Your task to perform on an android device: toggle translation in the chrome app Image 0: 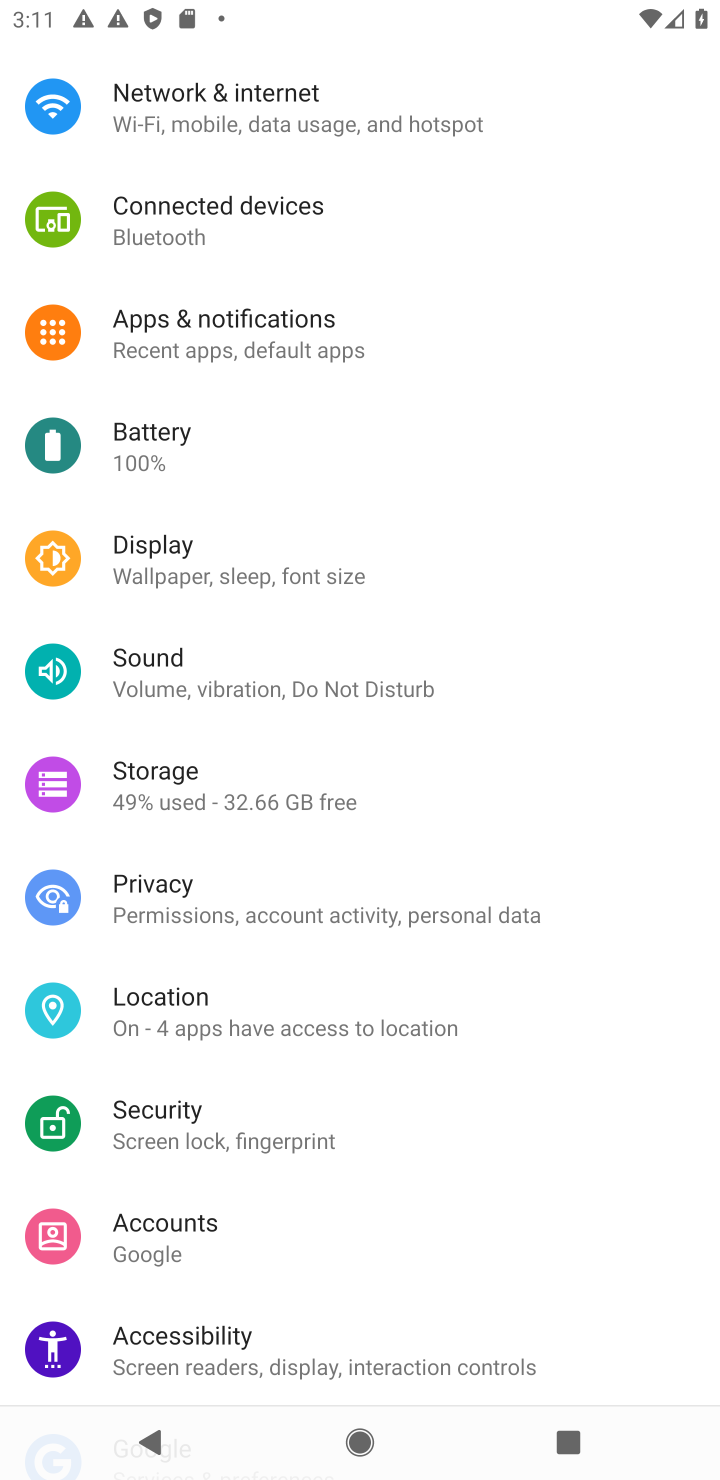
Step 0: press home button
Your task to perform on an android device: toggle translation in the chrome app Image 1: 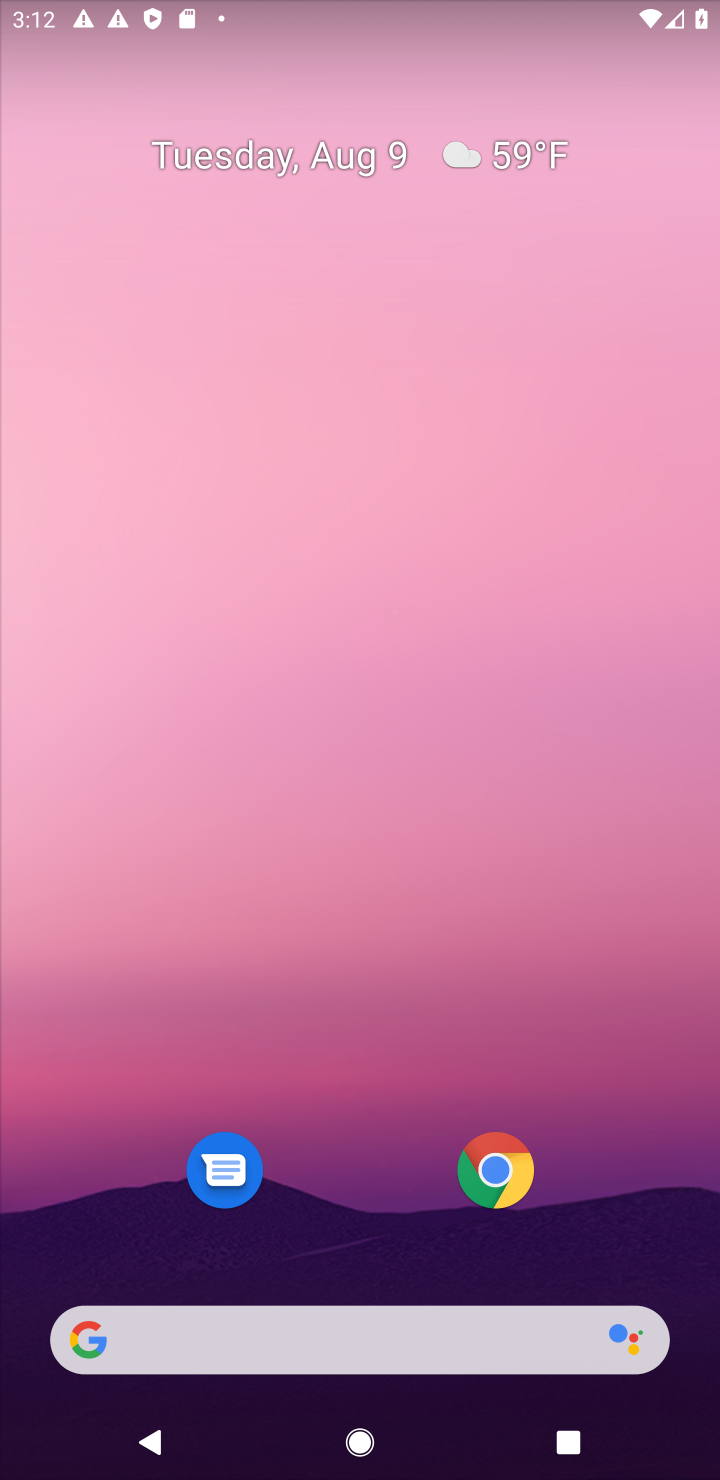
Step 1: click (493, 1169)
Your task to perform on an android device: toggle translation in the chrome app Image 2: 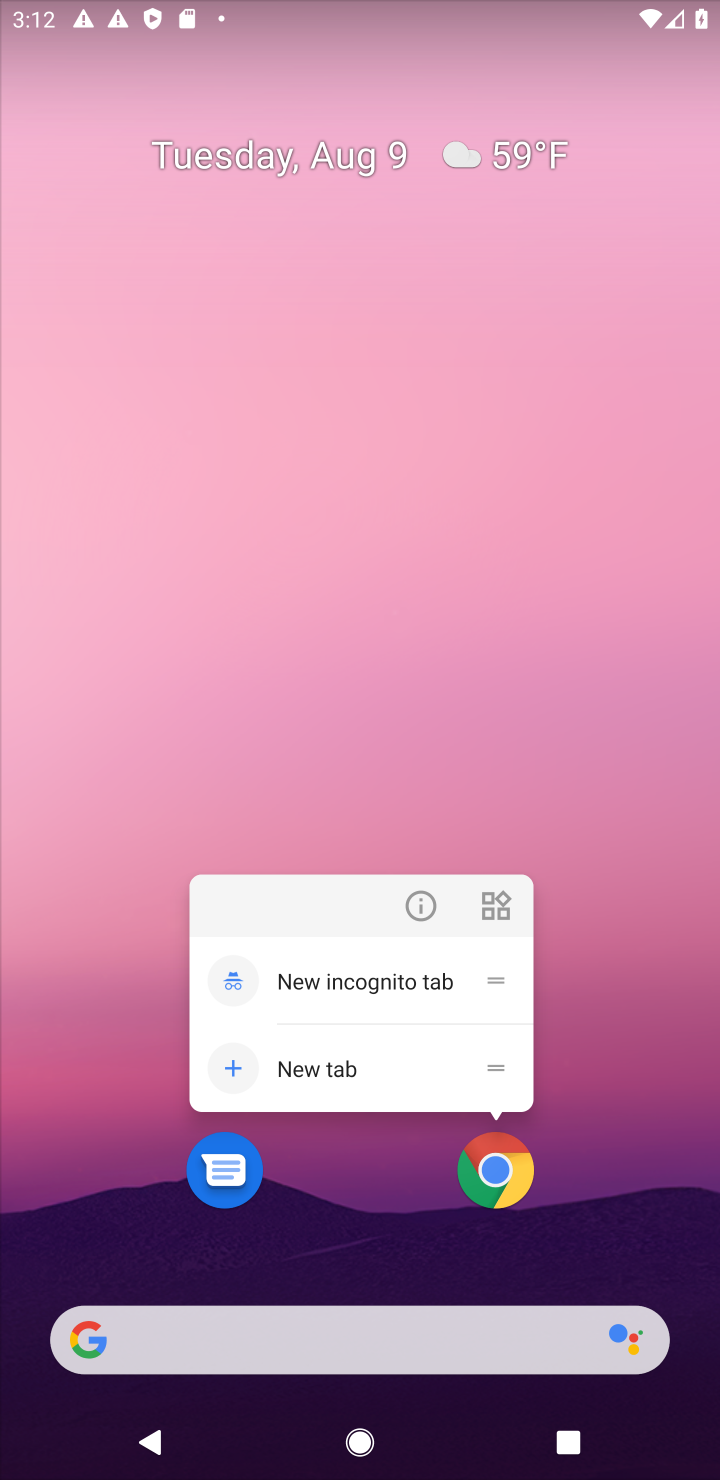
Step 2: click (509, 1170)
Your task to perform on an android device: toggle translation in the chrome app Image 3: 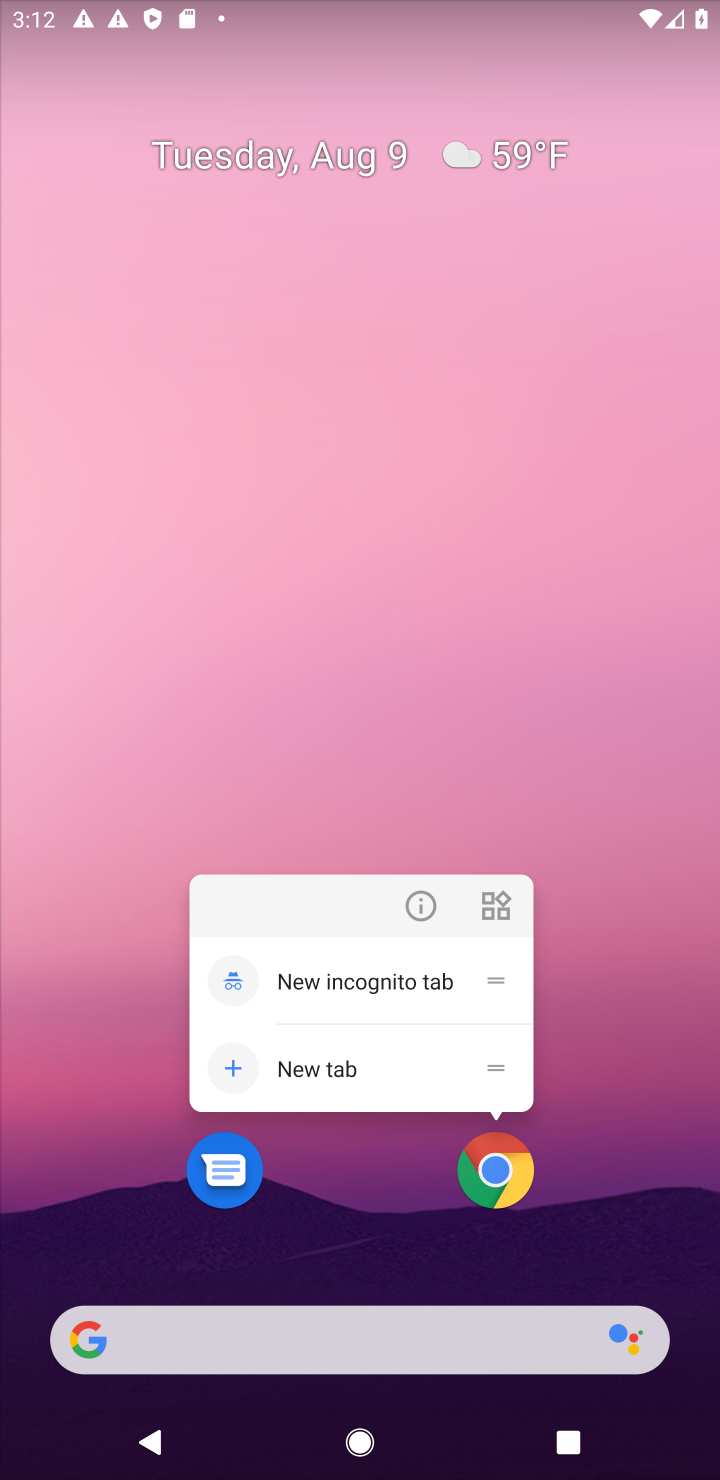
Step 3: click (511, 1176)
Your task to perform on an android device: toggle translation in the chrome app Image 4: 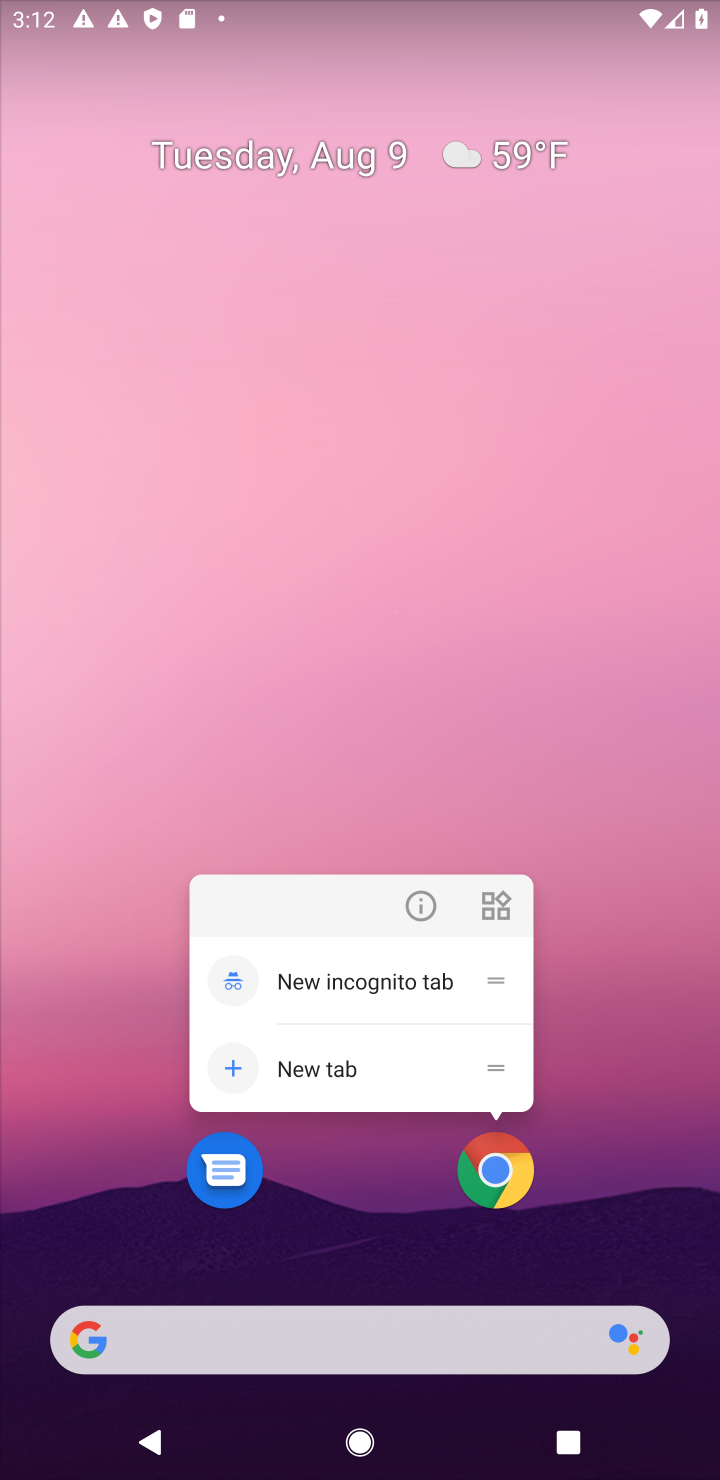
Step 4: click (515, 1153)
Your task to perform on an android device: toggle translation in the chrome app Image 5: 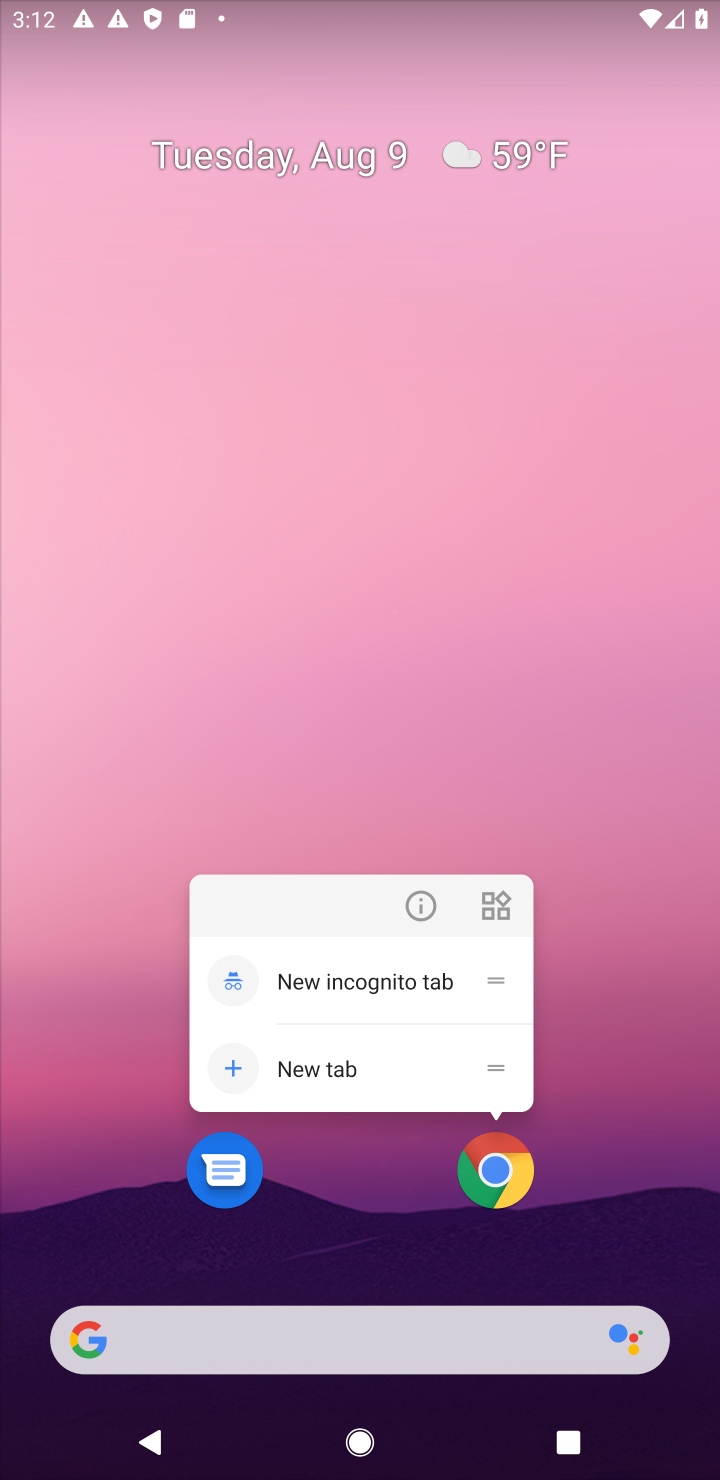
Step 5: click (499, 1171)
Your task to perform on an android device: toggle translation in the chrome app Image 6: 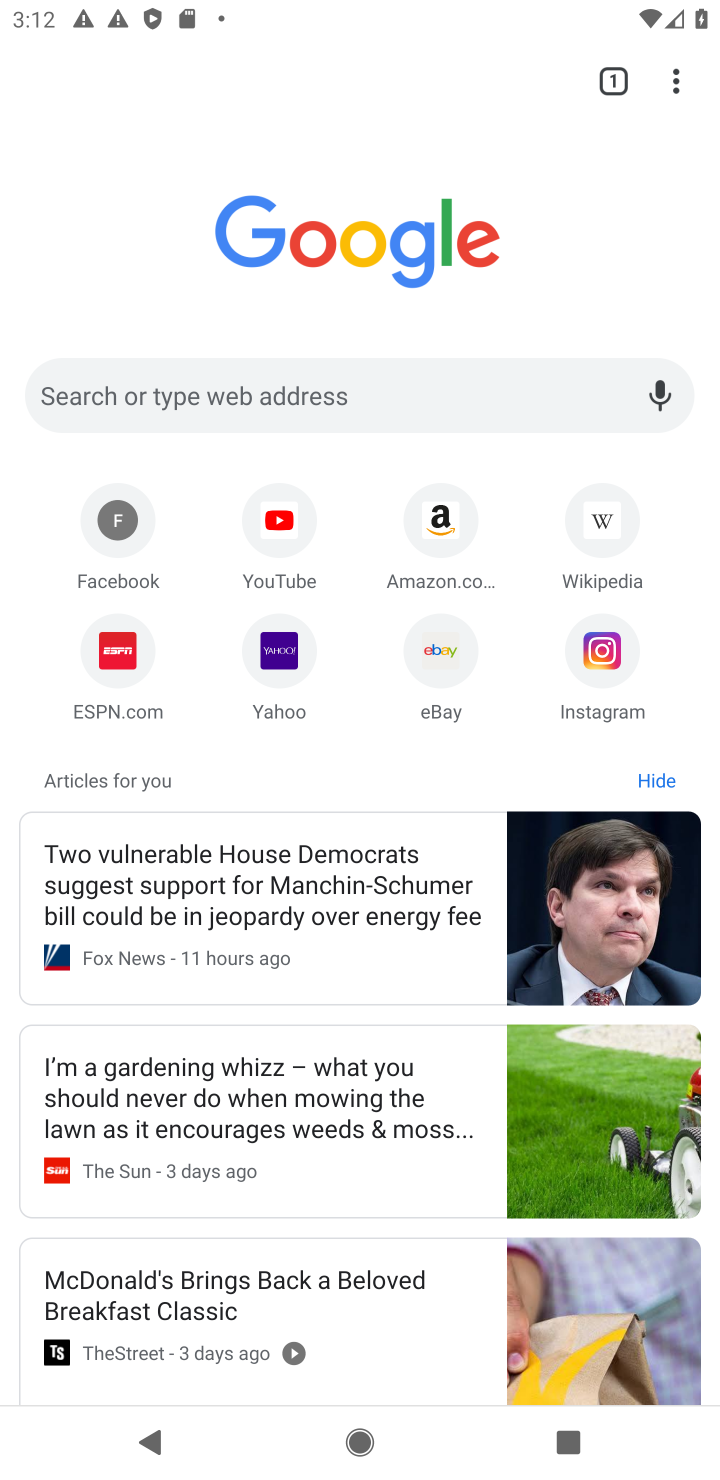
Step 6: drag from (675, 80) to (369, 678)
Your task to perform on an android device: toggle translation in the chrome app Image 7: 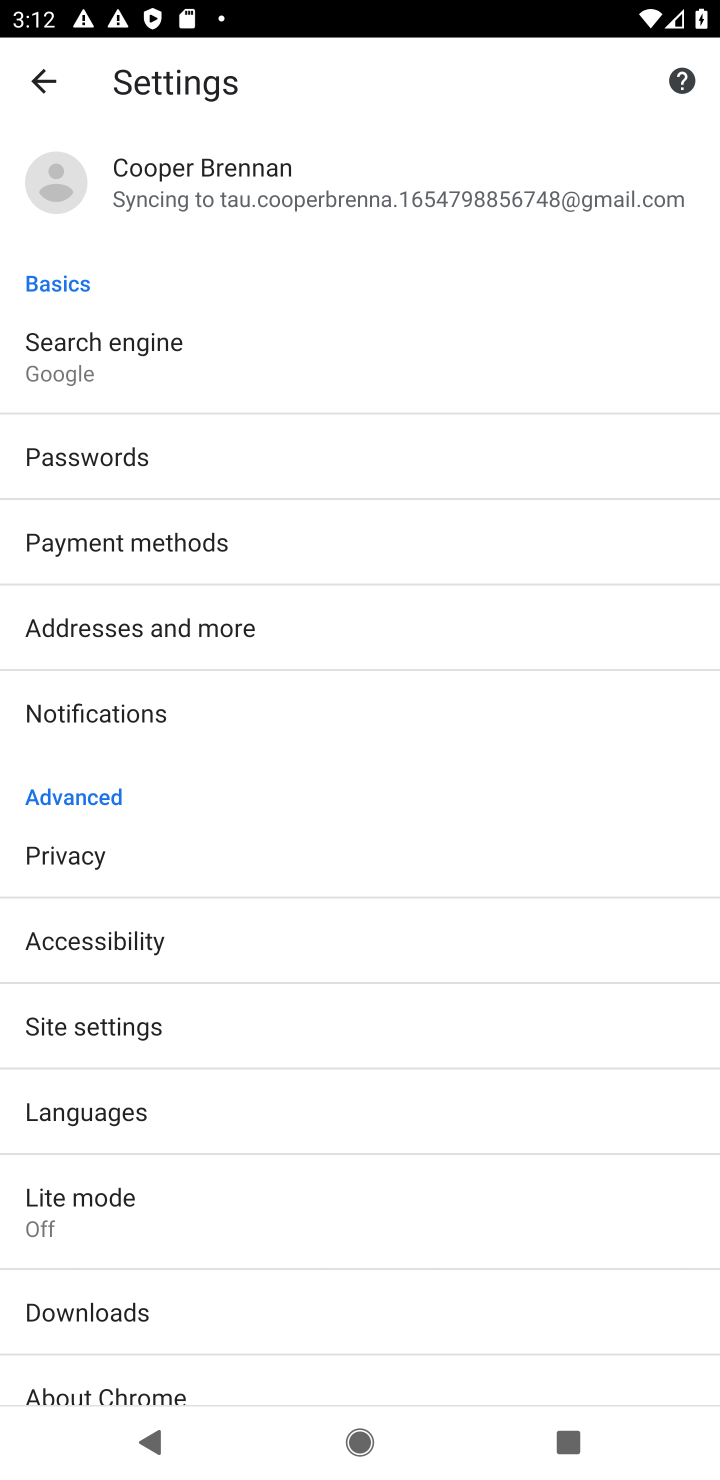
Step 7: click (131, 1118)
Your task to perform on an android device: toggle translation in the chrome app Image 8: 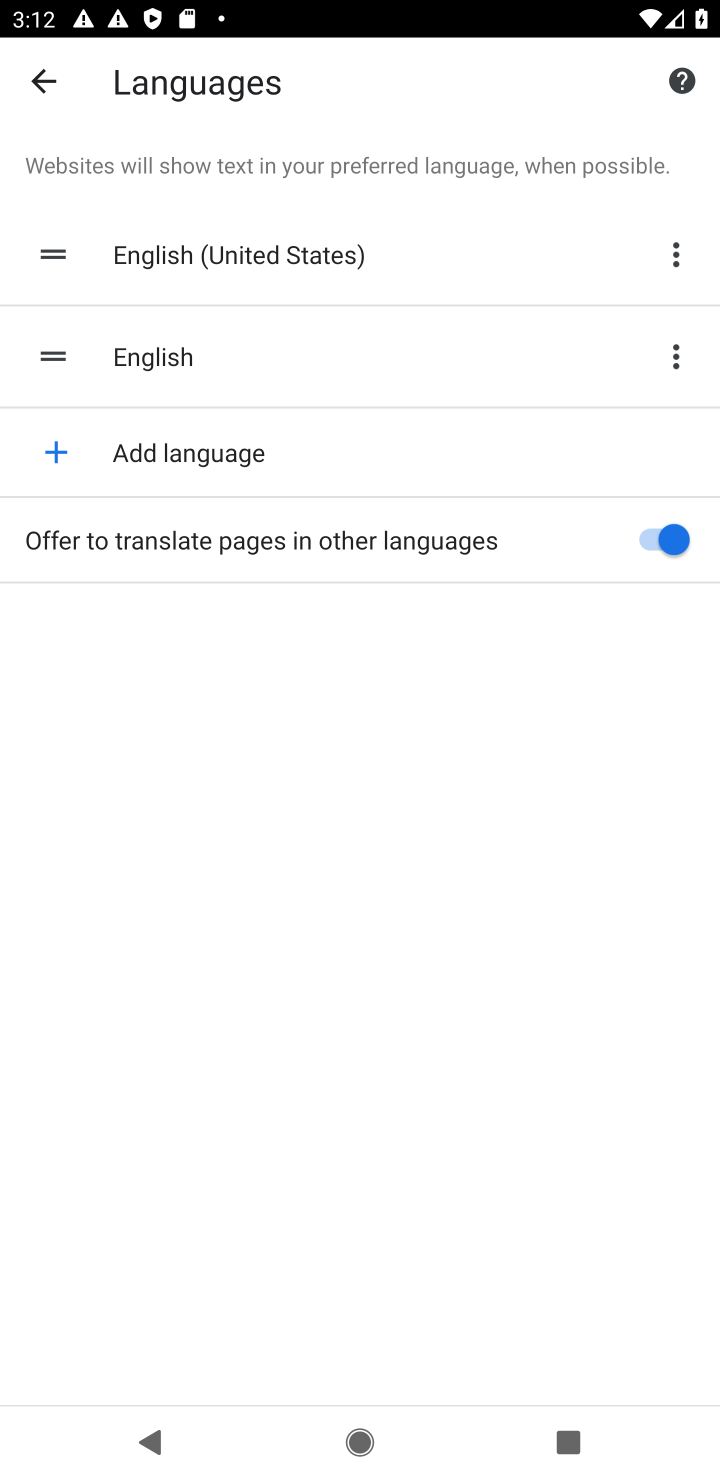
Step 8: click (662, 543)
Your task to perform on an android device: toggle translation in the chrome app Image 9: 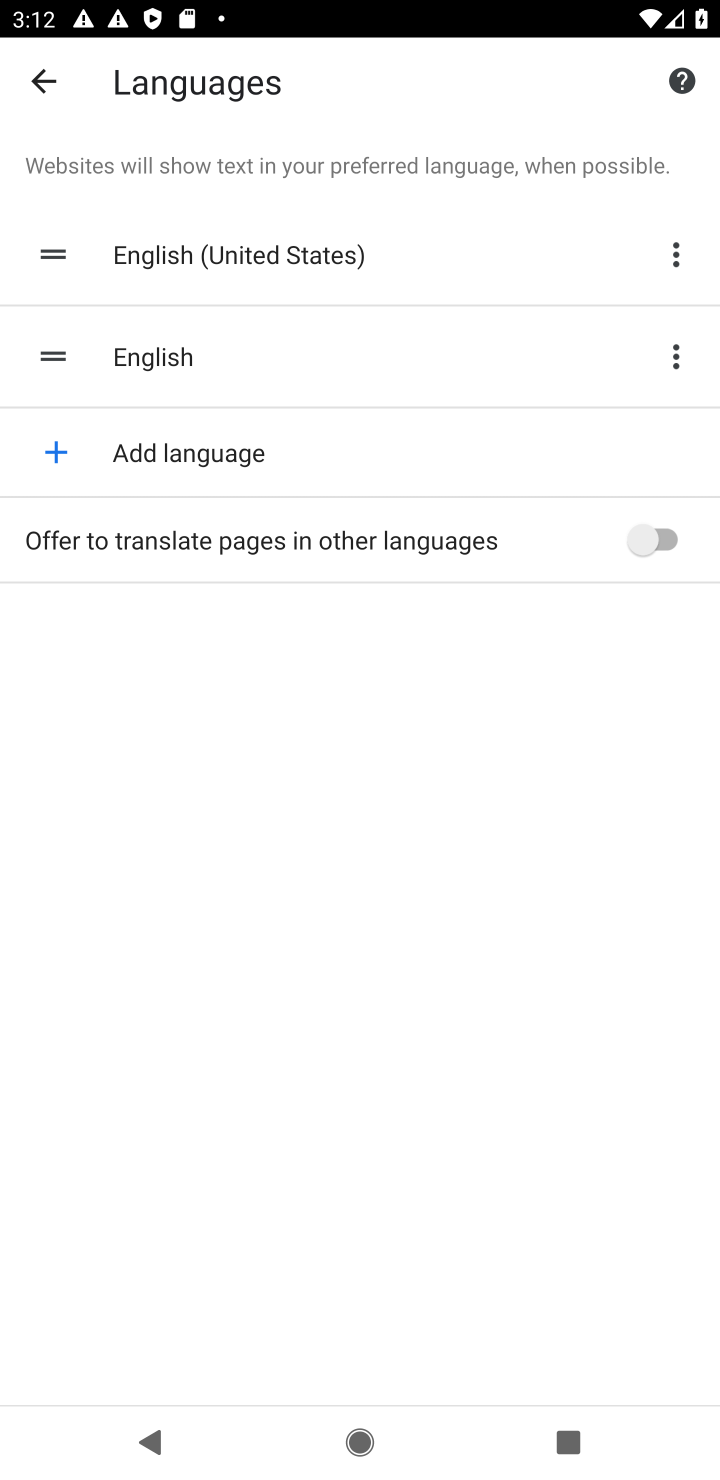
Step 9: task complete